Your task to perform on an android device: open app "Duolingo: language lessons" (install if not already installed) and go to login screen Image 0: 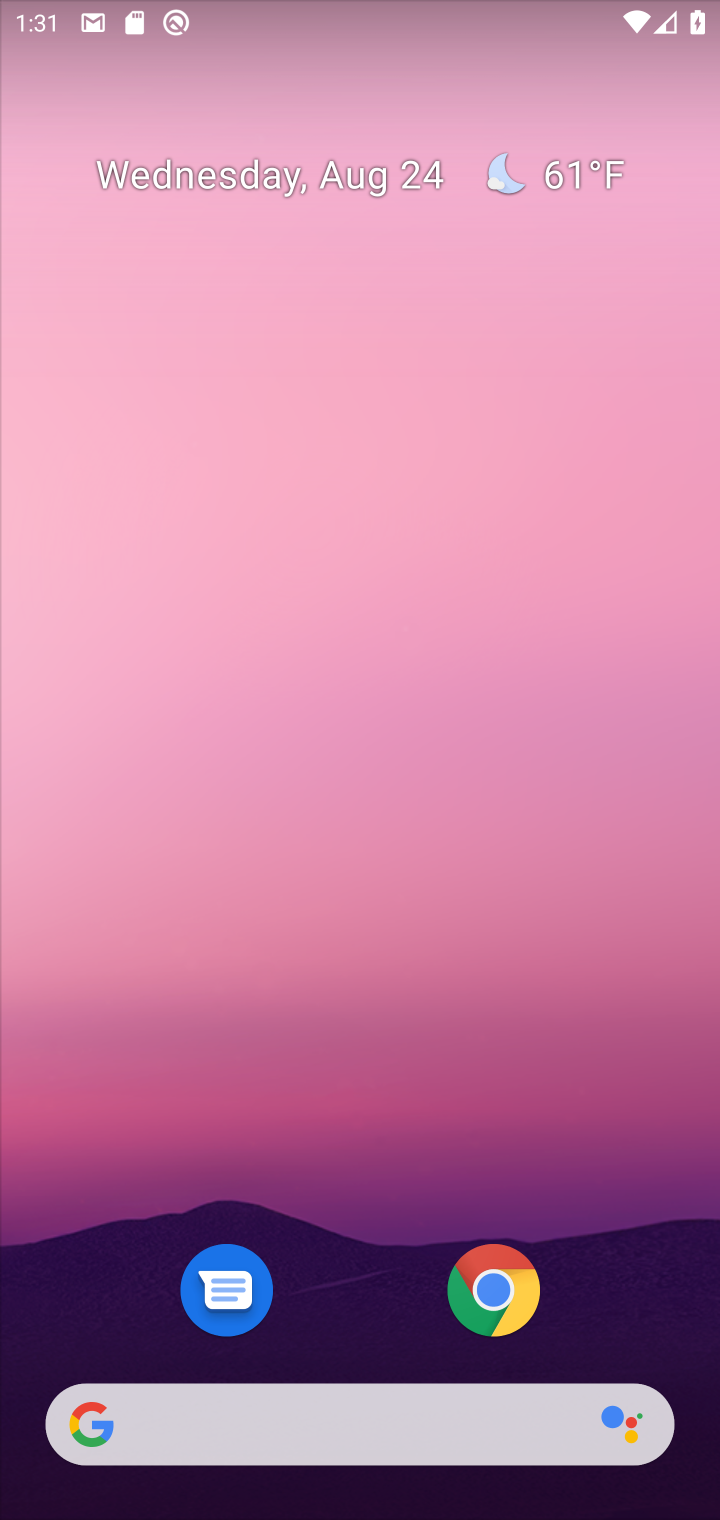
Step 0: drag from (321, 853) to (323, 13)
Your task to perform on an android device: open app "Duolingo: language lessons" (install if not already installed) and go to login screen Image 1: 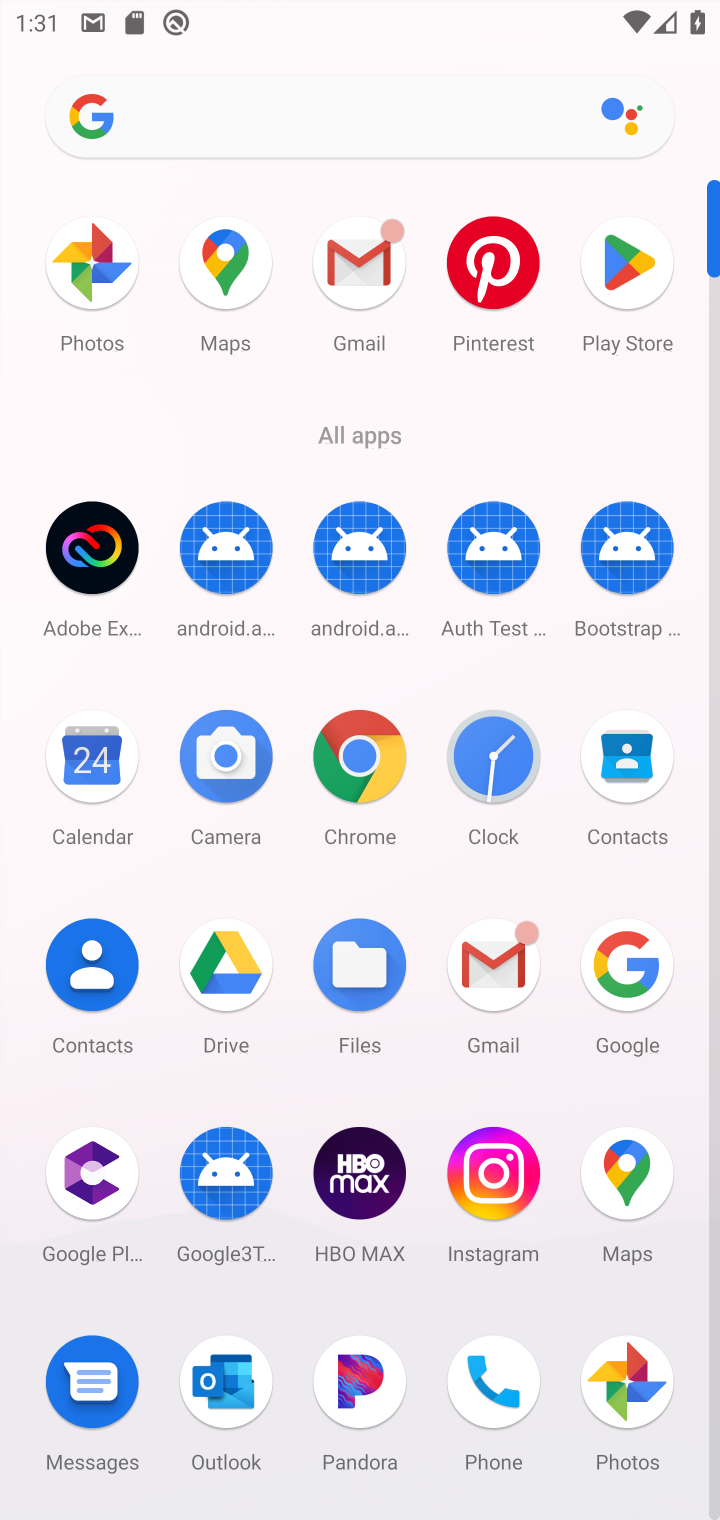
Step 1: click (621, 285)
Your task to perform on an android device: open app "Duolingo: language lessons" (install if not already installed) and go to login screen Image 2: 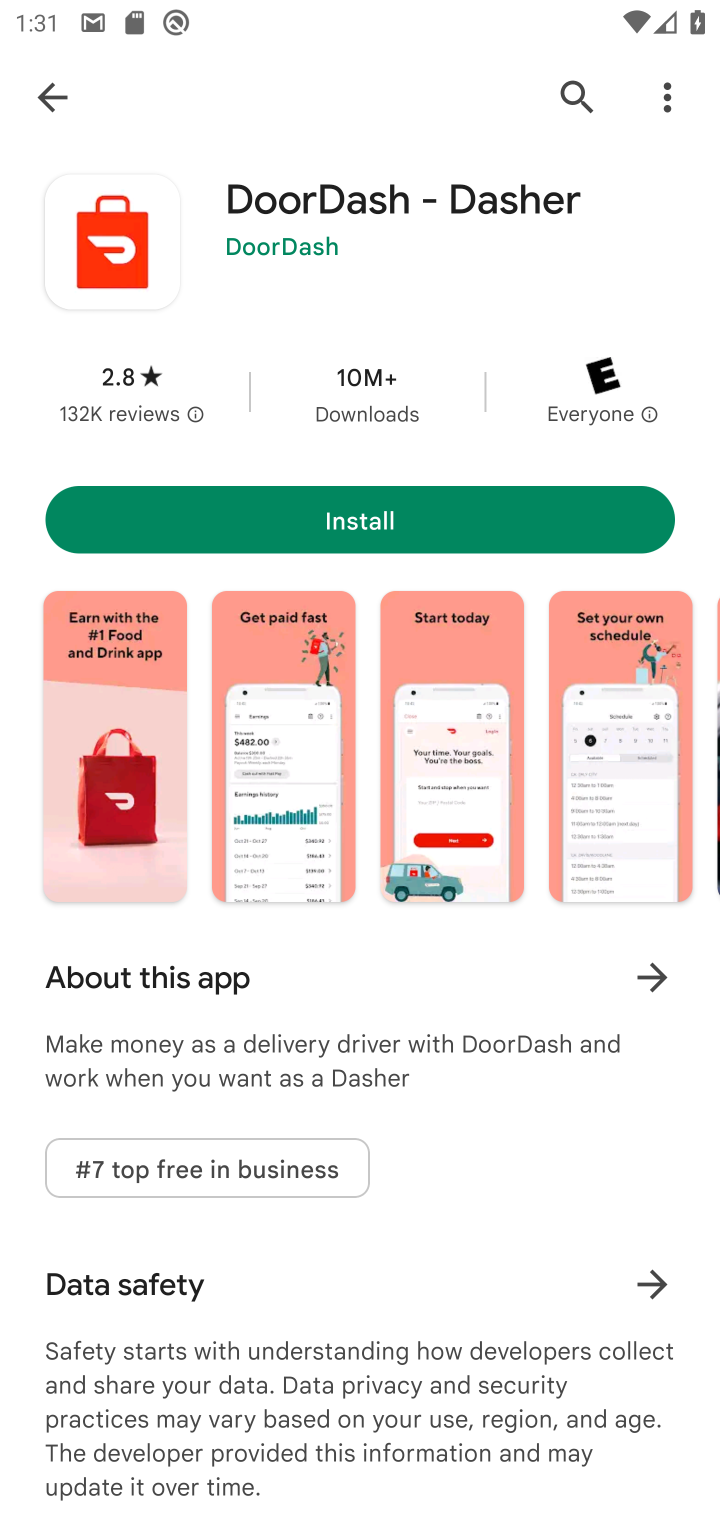
Step 2: click (53, 97)
Your task to perform on an android device: open app "Duolingo: language lessons" (install if not already installed) and go to login screen Image 3: 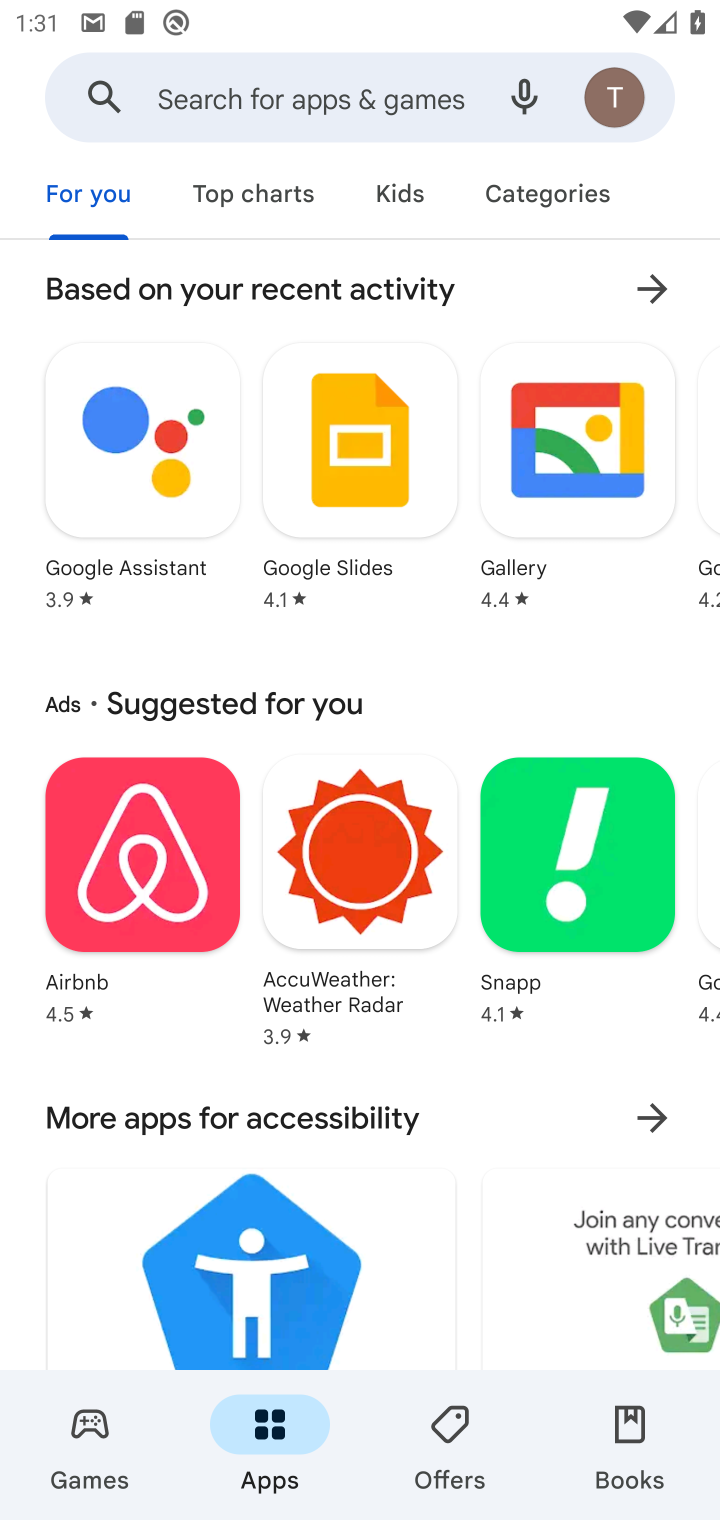
Step 3: click (317, 97)
Your task to perform on an android device: open app "Duolingo: language lessons" (install if not already installed) and go to login screen Image 4: 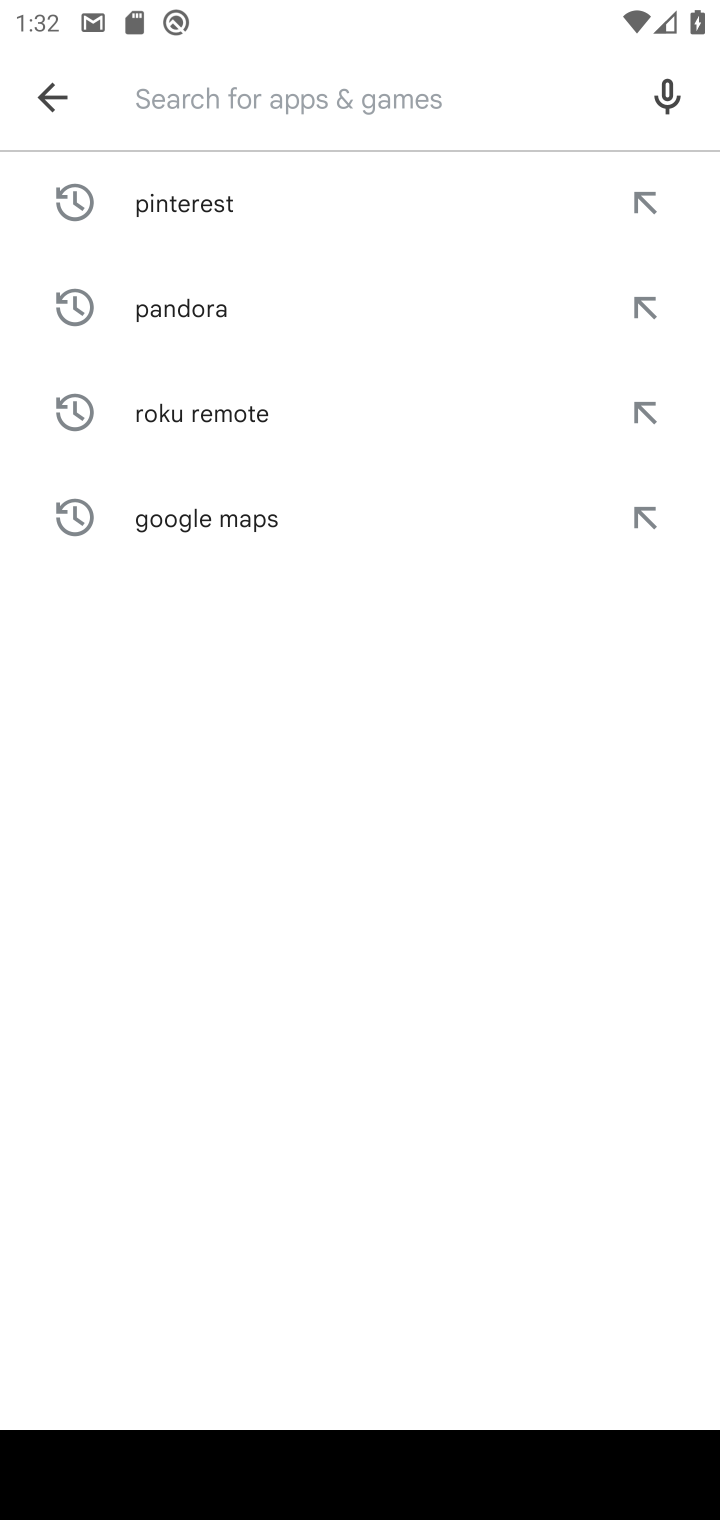
Step 4: type "Duolingo: language lessons"
Your task to perform on an android device: open app "Duolingo: language lessons" (install if not already installed) and go to login screen Image 5: 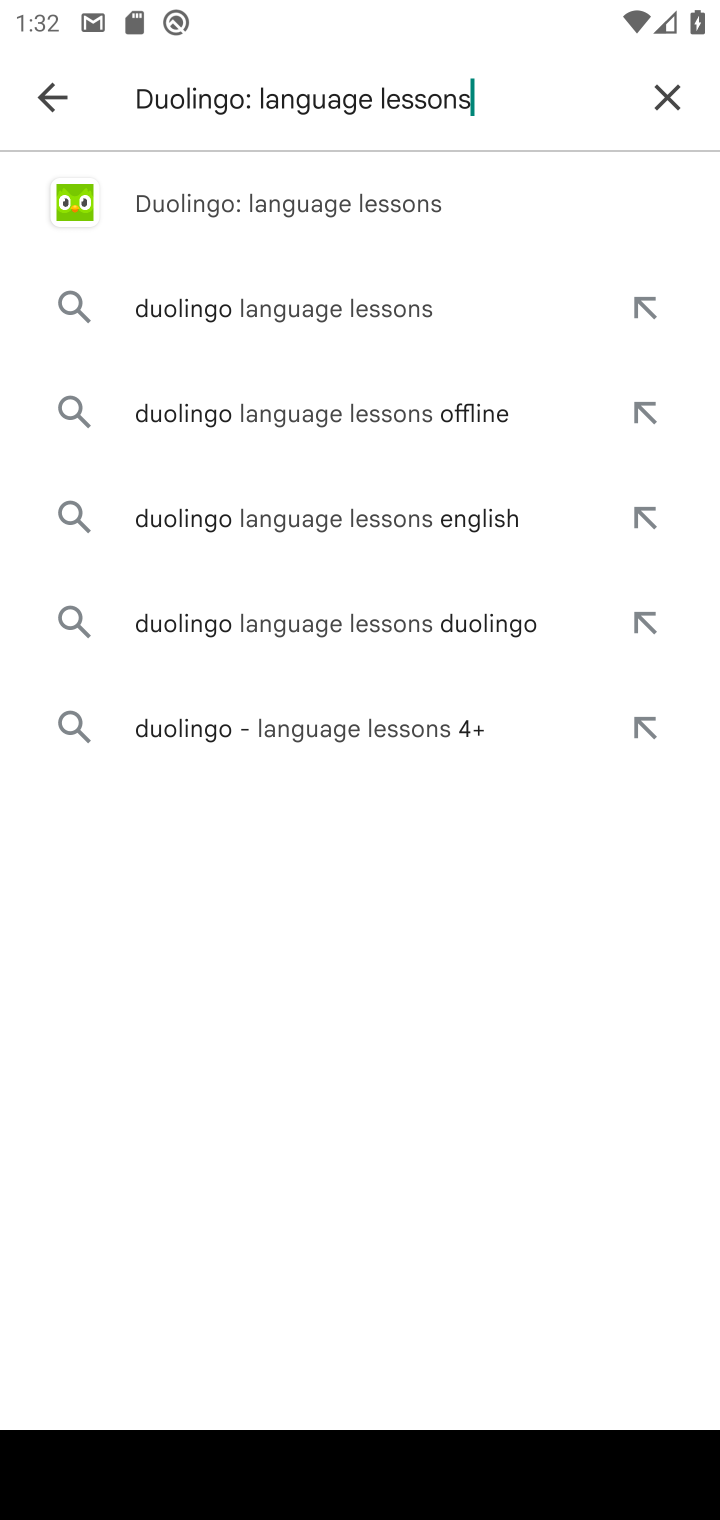
Step 5: click (227, 203)
Your task to perform on an android device: open app "Duolingo: language lessons" (install if not already installed) and go to login screen Image 6: 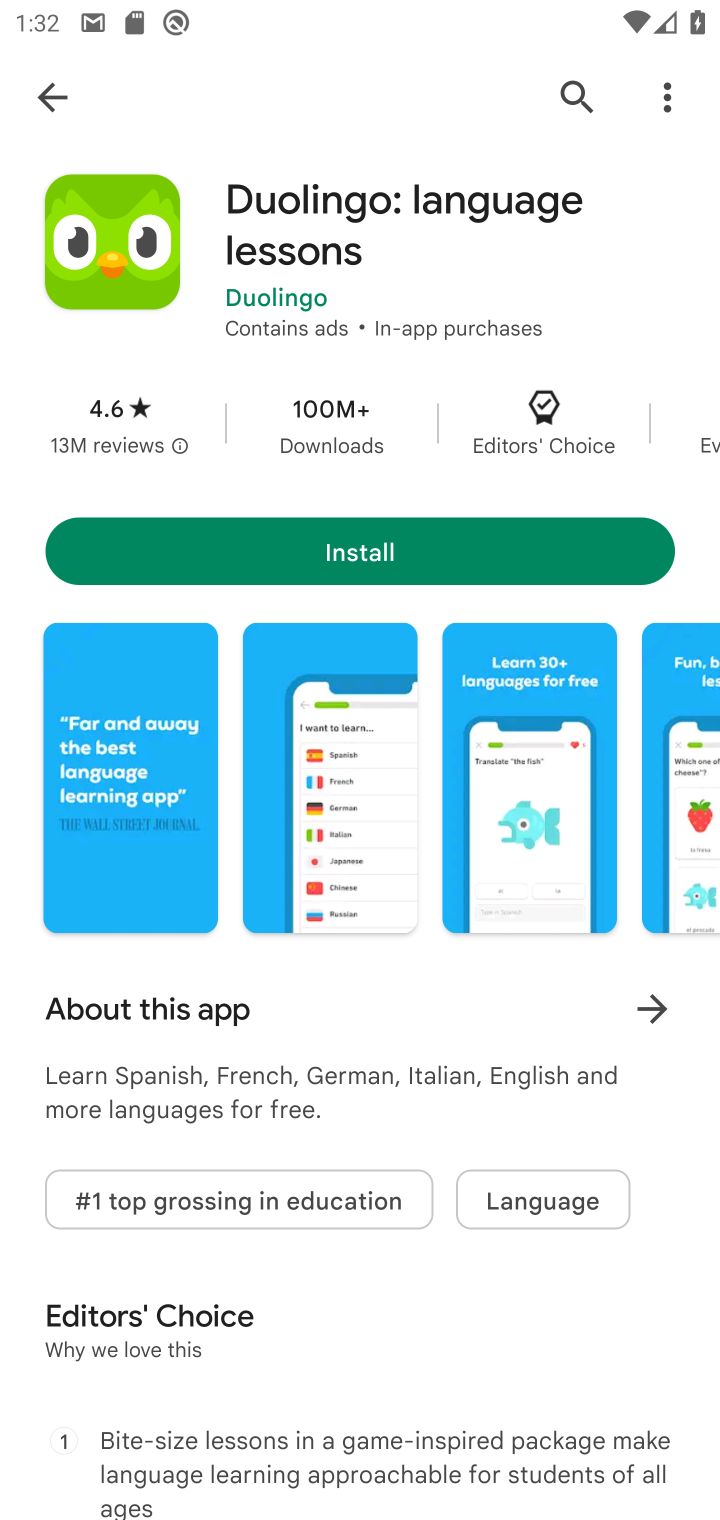
Step 6: click (363, 533)
Your task to perform on an android device: open app "Duolingo: language lessons" (install if not already installed) and go to login screen Image 7: 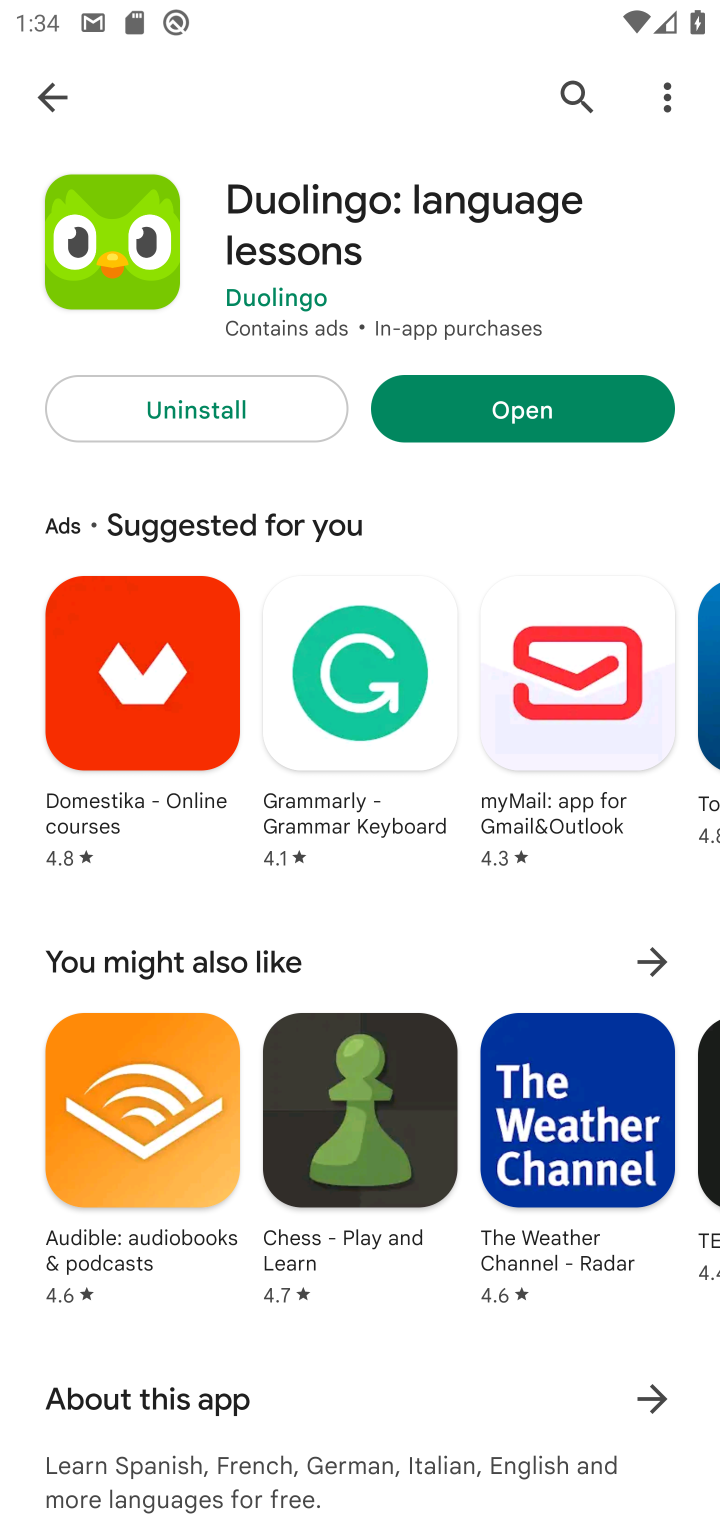
Step 7: click (530, 423)
Your task to perform on an android device: open app "Duolingo: language lessons" (install if not already installed) and go to login screen Image 8: 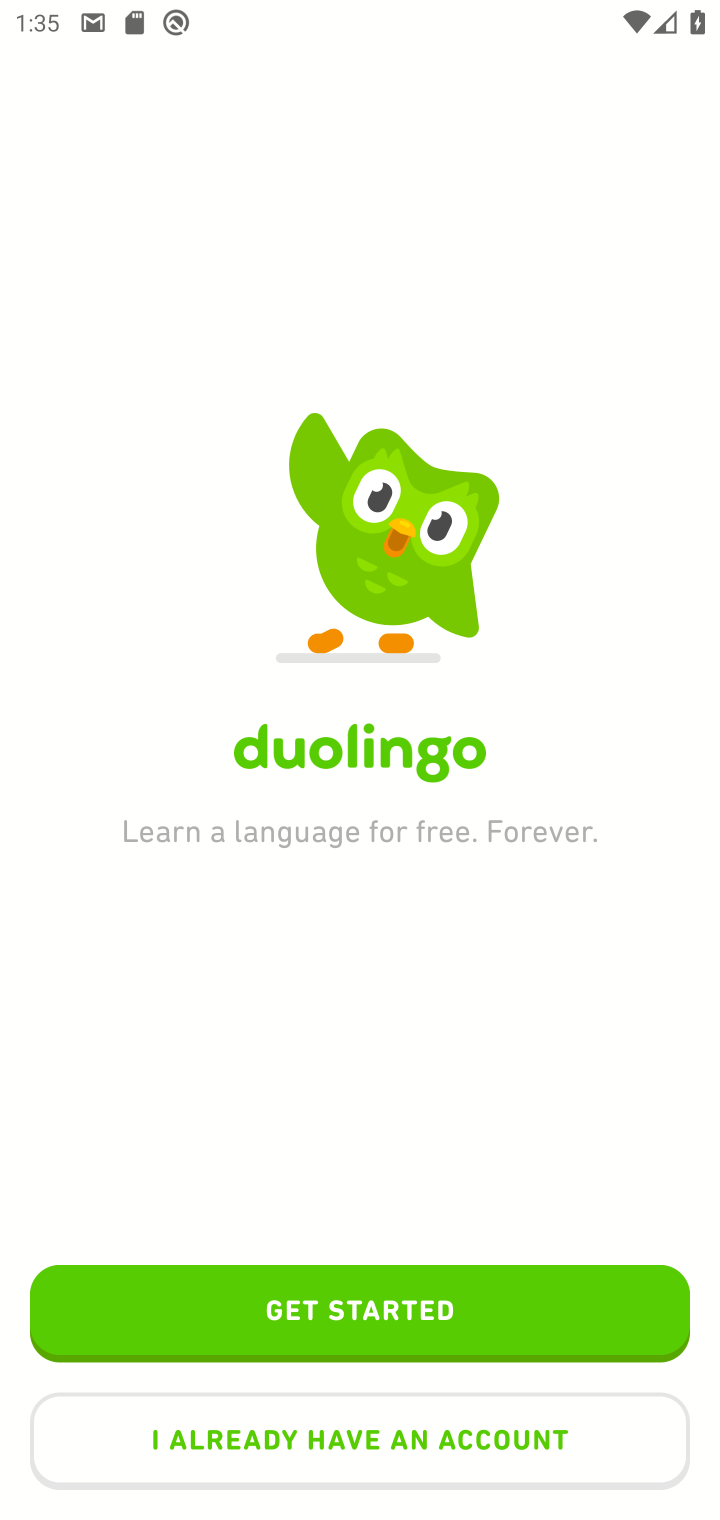
Step 8: task complete